Your task to perform on an android device: open app "LinkedIn" (install if not already installed) and enter user name: "dirt@inbox.com" and password: "receptionist" Image 0: 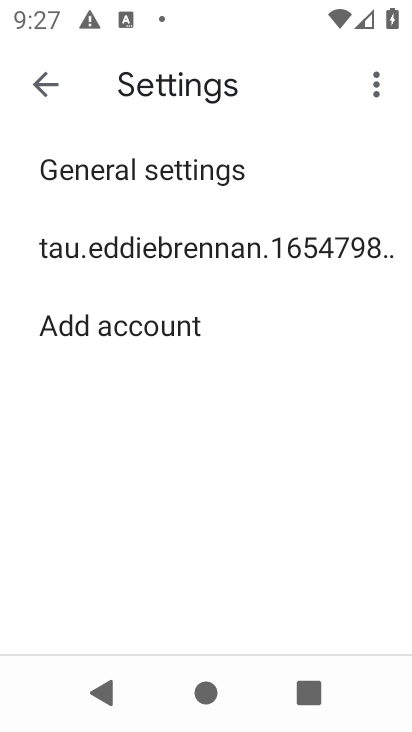
Step 0: press home button
Your task to perform on an android device: open app "LinkedIn" (install if not already installed) and enter user name: "dirt@inbox.com" and password: "receptionist" Image 1: 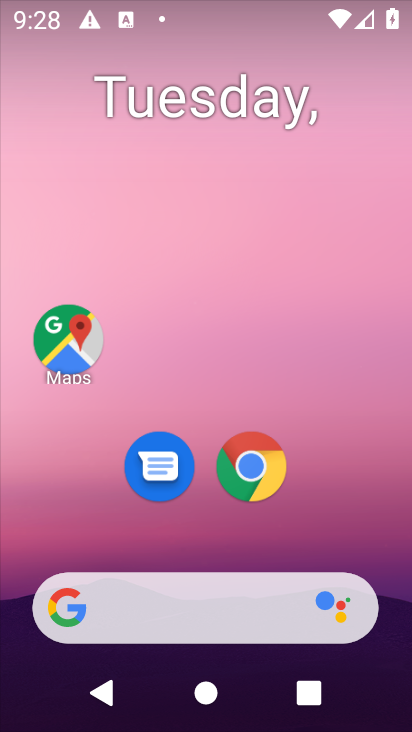
Step 1: drag from (197, 566) to (289, 3)
Your task to perform on an android device: open app "LinkedIn" (install if not already installed) and enter user name: "dirt@inbox.com" and password: "receptionist" Image 2: 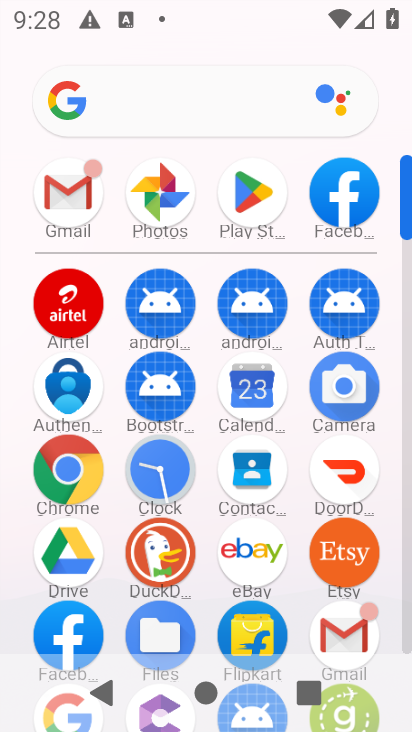
Step 2: click (254, 197)
Your task to perform on an android device: open app "LinkedIn" (install if not already installed) and enter user name: "dirt@inbox.com" and password: "receptionist" Image 3: 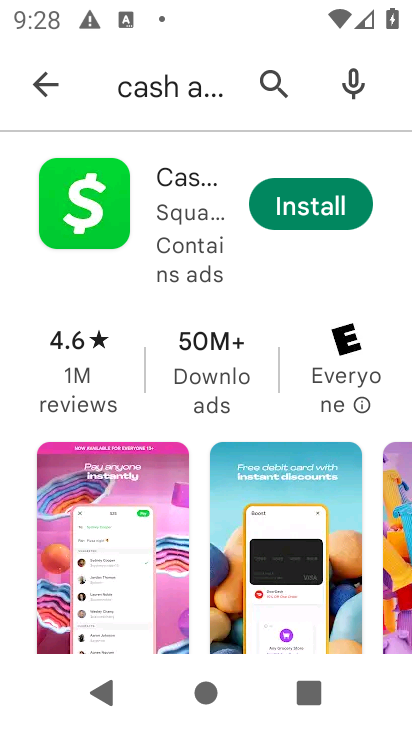
Step 3: click (270, 85)
Your task to perform on an android device: open app "LinkedIn" (install if not already installed) and enter user name: "dirt@inbox.com" and password: "receptionist" Image 4: 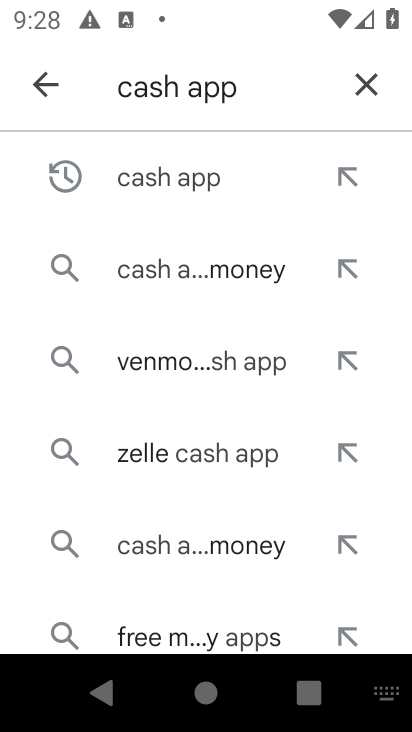
Step 4: click (364, 86)
Your task to perform on an android device: open app "LinkedIn" (install if not already installed) and enter user name: "dirt@inbox.com" and password: "receptionist" Image 5: 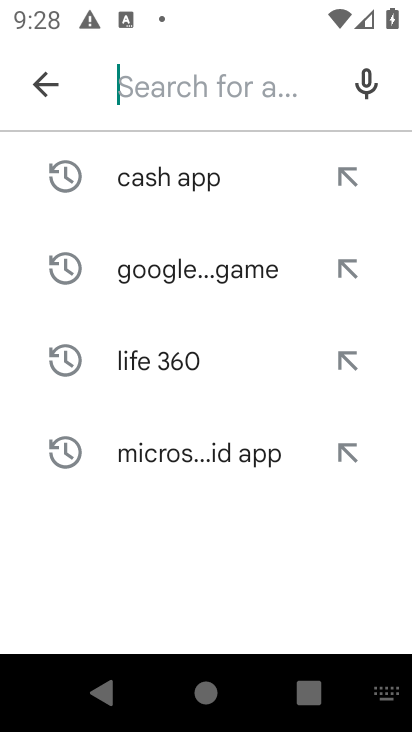
Step 5: click (183, 102)
Your task to perform on an android device: open app "LinkedIn" (install if not already installed) and enter user name: "dirt@inbox.com" and password: "receptionist" Image 6: 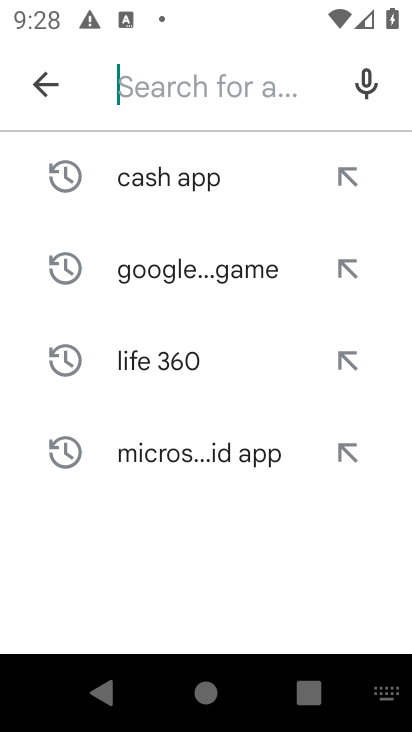
Step 6: click (173, 79)
Your task to perform on an android device: open app "LinkedIn" (install if not already installed) and enter user name: "dirt@inbox.com" and password: "receptionist" Image 7: 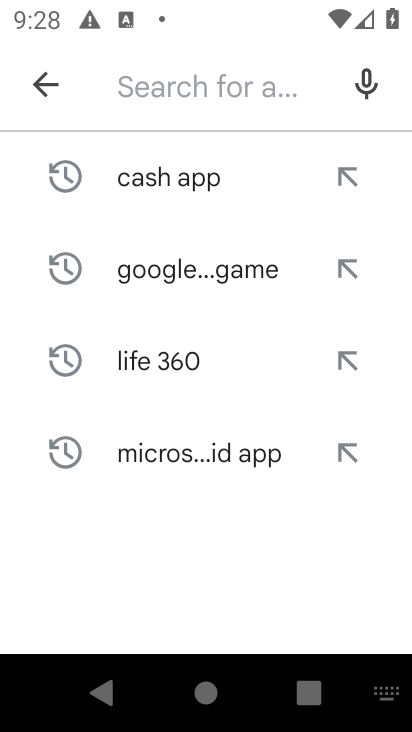
Step 7: type "LinkedIn"
Your task to perform on an android device: open app "LinkedIn" (install if not already installed) and enter user name: "dirt@inbox.com" and password: "receptionist" Image 8: 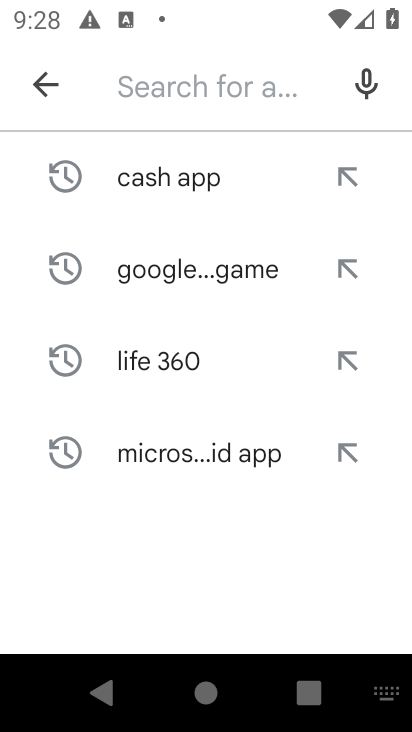
Step 8: click (189, 559)
Your task to perform on an android device: open app "LinkedIn" (install if not already installed) and enter user name: "dirt@inbox.com" and password: "receptionist" Image 9: 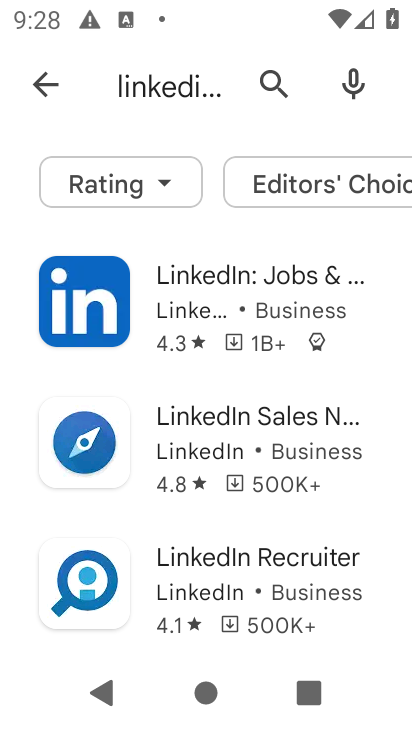
Step 9: click (189, 269)
Your task to perform on an android device: open app "LinkedIn" (install if not already installed) and enter user name: "dirt@inbox.com" and password: "receptionist" Image 10: 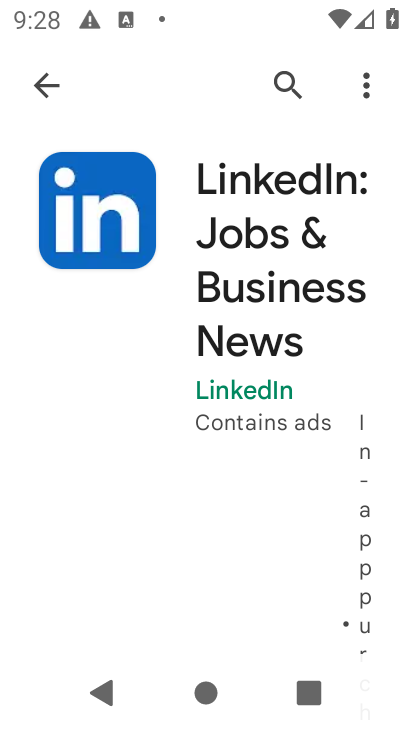
Step 10: click (303, 85)
Your task to perform on an android device: open app "LinkedIn" (install if not already installed) and enter user name: "dirt@inbox.com" and password: "receptionist" Image 11: 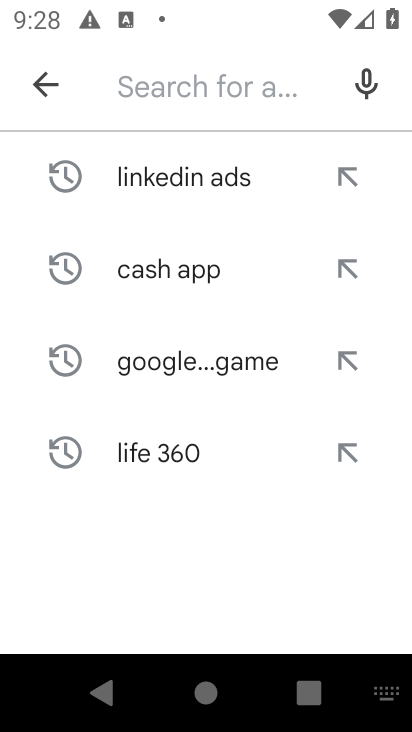
Step 11: click (215, 94)
Your task to perform on an android device: open app "LinkedIn" (install if not already installed) and enter user name: "dirt@inbox.com" and password: "receptionist" Image 12: 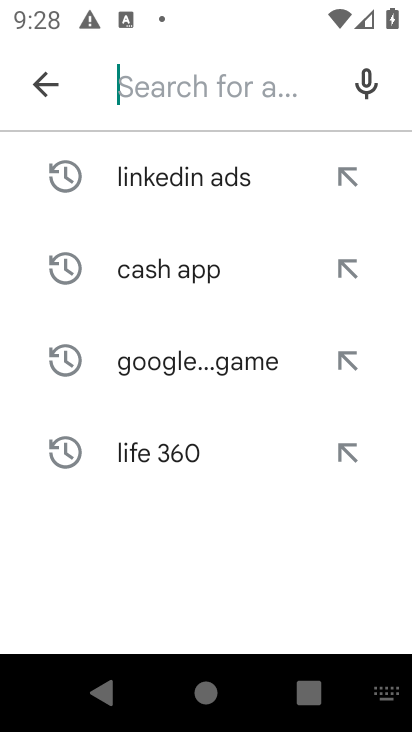
Step 12: type "dirt@inbox.com"
Your task to perform on an android device: open app "LinkedIn" (install if not already installed) and enter user name: "dirt@inbox.com" and password: "receptionist" Image 13: 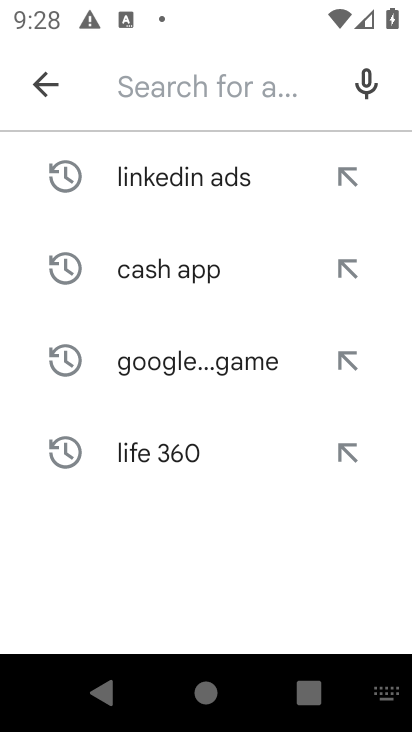
Step 13: click (203, 578)
Your task to perform on an android device: open app "LinkedIn" (install if not already installed) and enter user name: "dirt@inbox.com" and password: "receptionist" Image 14: 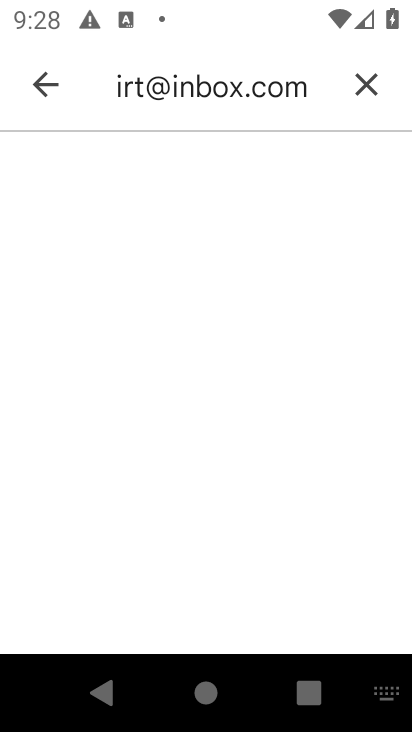
Step 14: click (373, 80)
Your task to perform on an android device: open app "LinkedIn" (install if not already installed) and enter user name: "dirt@inbox.com" and password: "receptionist" Image 15: 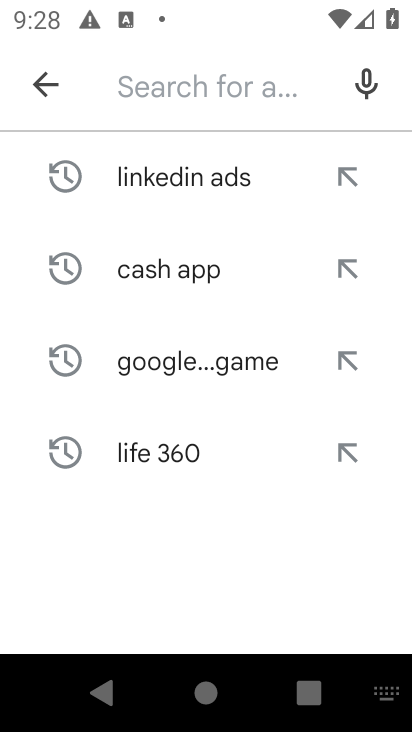
Step 15: click (160, 184)
Your task to perform on an android device: open app "LinkedIn" (install if not already installed) and enter user name: "dirt@inbox.com" and password: "receptionist" Image 16: 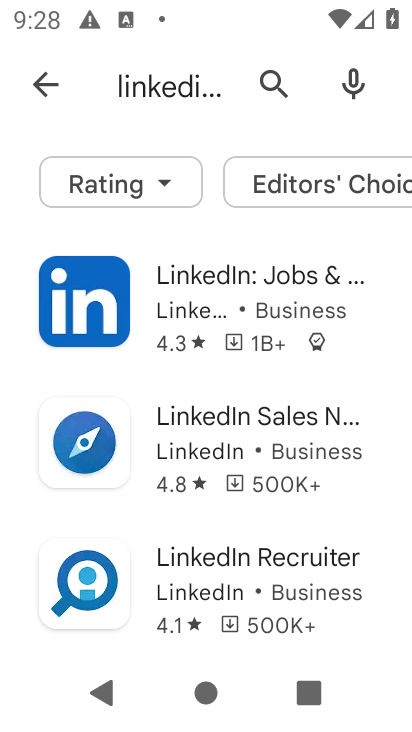
Step 16: click (133, 322)
Your task to perform on an android device: open app "LinkedIn" (install if not already installed) and enter user name: "dirt@inbox.com" and password: "receptionist" Image 17: 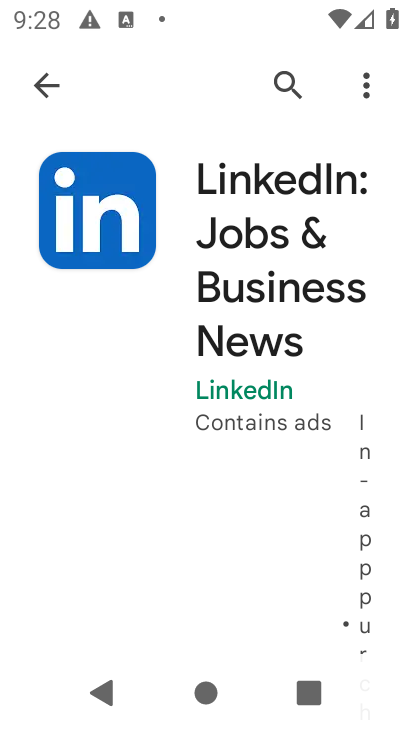
Step 17: drag from (252, 616) to (287, 93)
Your task to perform on an android device: open app "LinkedIn" (install if not already installed) and enter user name: "dirt@inbox.com" and password: "receptionist" Image 18: 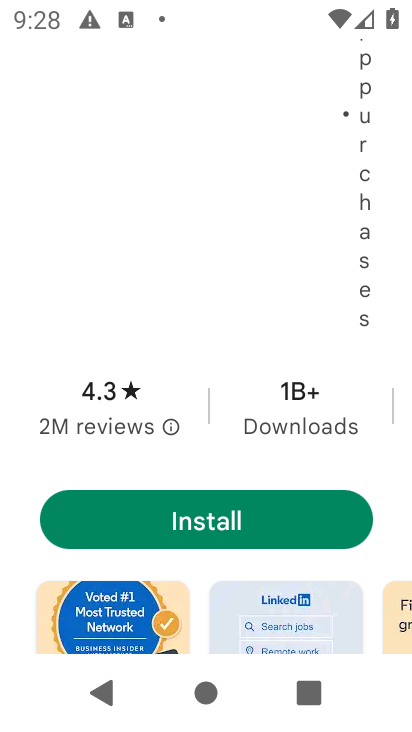
Step 18: click (233, 521)
Your task to perform on an android device: open app "LinkedIn" (install if not already installed) and enter user name: "dirt@inbox.com" and password: "receptionist" Image 19: 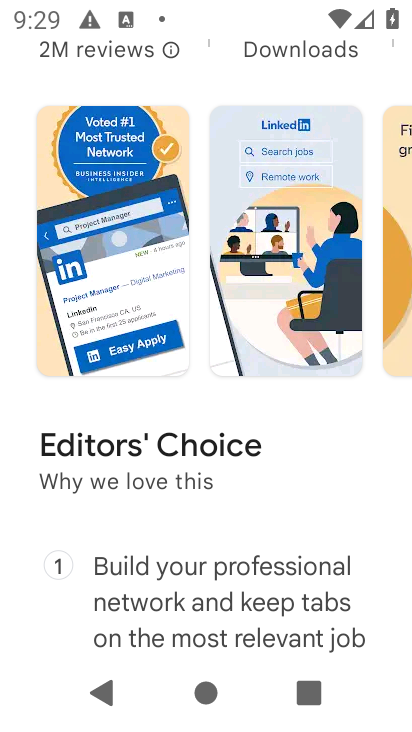
Step 19: drag from (263, 216) to (273, 680)
Your task to perform on an android device: open app "LinkedIn" (install if not already installed) and enter user name: "dirt@inbox.com" and password: "receptionist" Image 20: 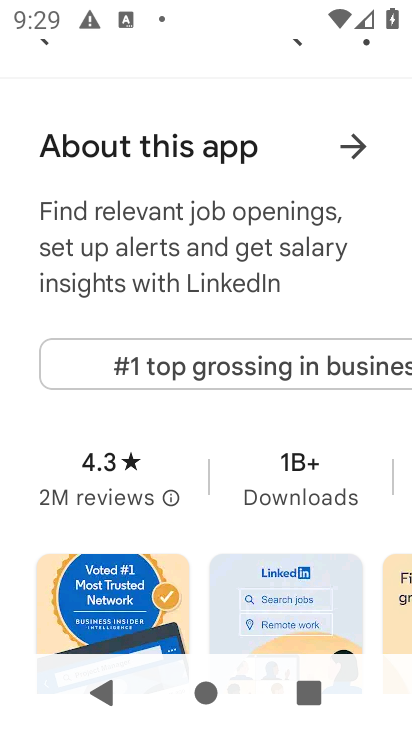
Step 20: drag from (277, 221) to (140, 695)
Your task to perform on an android device: open app "LinkedIn" (install if not already installed) and enter user name: "dirt@inbox.com" and password: "receptionist" Image 21: 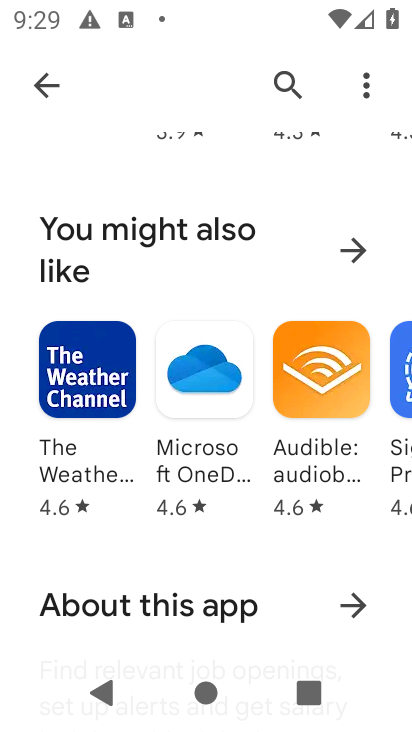
Step 21: click (283, 78)
Your task to perform on an android device: open app "LinkedIn" (install if not already installed) and enter user name: "dirt@inbox.com" and password: "receptionist" Image 22: 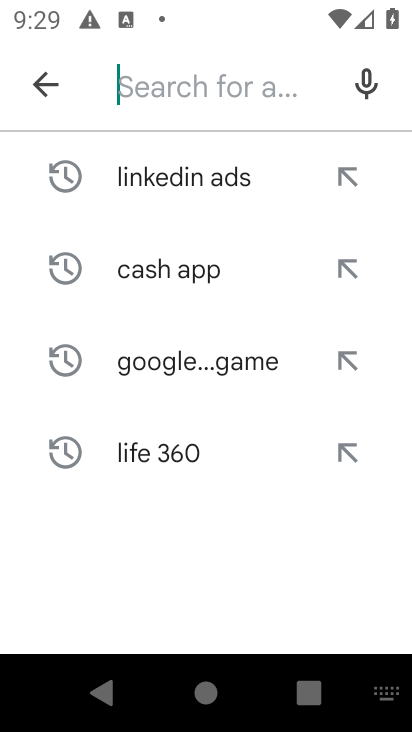
Step 22: click (129, 172)
Your task to perform on an android device: open app "LinkedIn" (install if not already installed) and enter user name: "dirt@inbox.com" and password: "receptionist" Image 23: 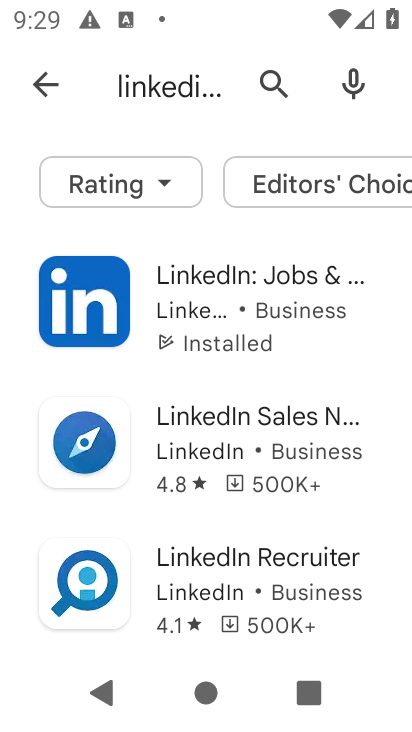
Step 23: click (192, 269)
Your task to perform on an android device: open app "LinkedIn" (install if not already installed) and enter user name: "dirt@inbox.com" and password: "receptionist" Image 24: 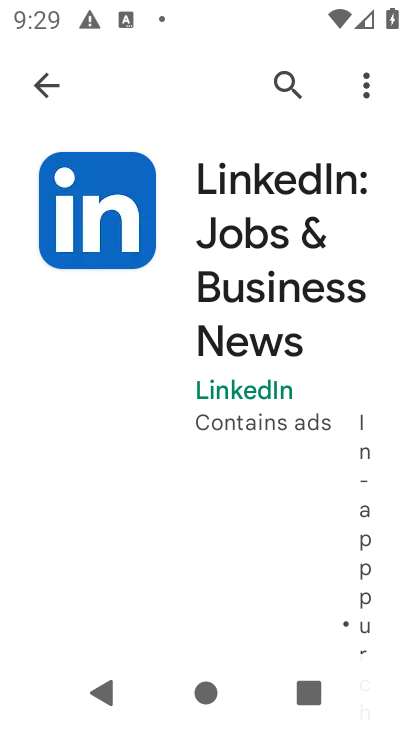
Step 24: drag from (137, 586) to (188, 95)
Your task to perform on an android device: open app "LinkedIn" (install if not already installed) and enter user name: "dirt@inbox.com" and password: "receptionist" Image 25: 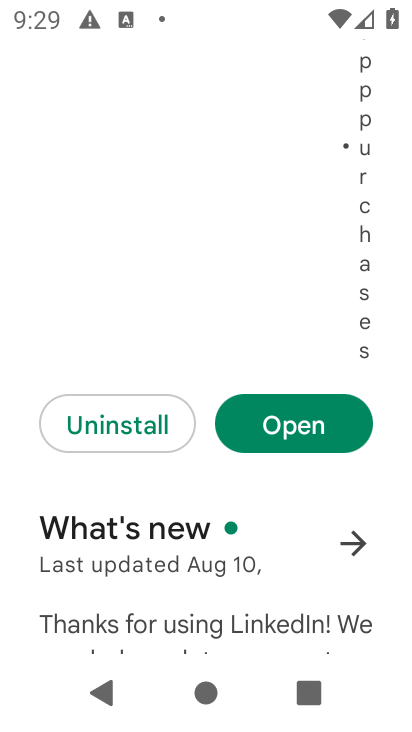
Step 25: click (291, 427)
Your task to perform on an android device: open app "LinkedIn" (install if not already installed) and enter user name: "dirt@inbox.com" and password: "receptionist" Image 26: 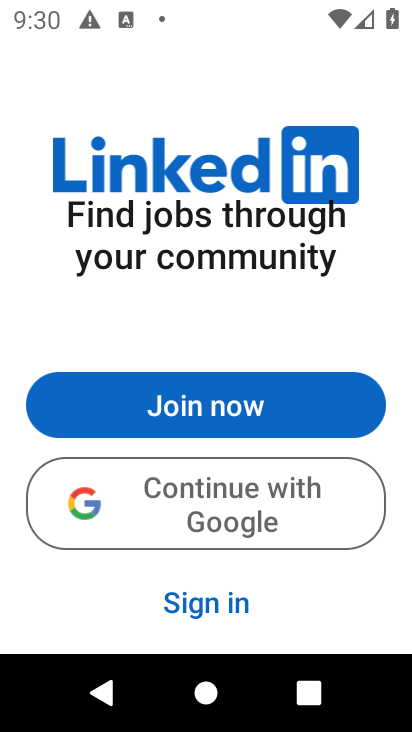
Step 26: click (204, 609)
Your task to perform on an android device: open app "LinkedIn" (install if not already installed) and enter user name: "dirt@inbox.com" and password: "receptionist" Image 27: 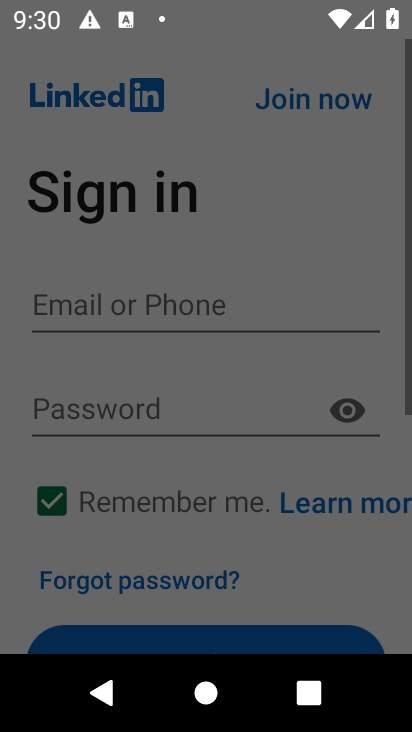
Step 27: click (78, 298)
Your task to perform on an android device: open app "LinkedIn" (install if not already installed) and enter user name: "dirt@inbox.com" and password: "receptionist" Image 28: 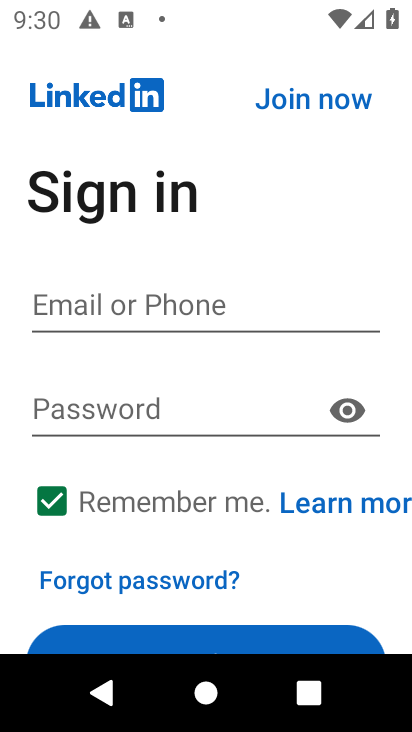
Step 28: click (125, 304)
Your task to perform on an android device: open app "LinkedIn" (install if not already installed) and enter user name: "dirt@inbox.com" and password: "receptionist" Image 29: 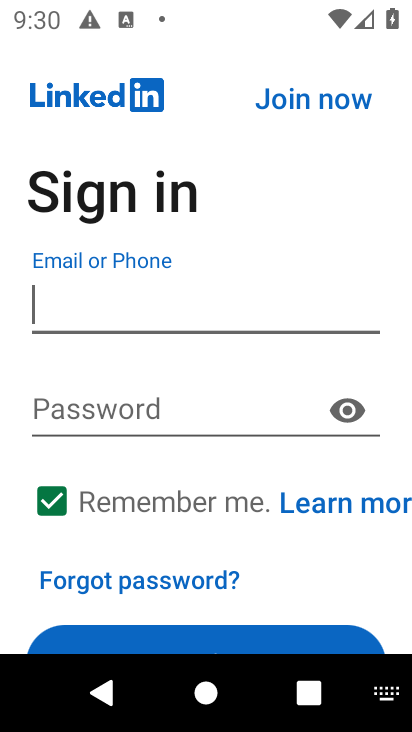
Step 29: type "dirt@inbox.com"
Your task to perform on an android device: open app "LinkedIn" (install if not already installed) and enter user name: "dirt@inbox.com" and password: "receptionist" Image 30: 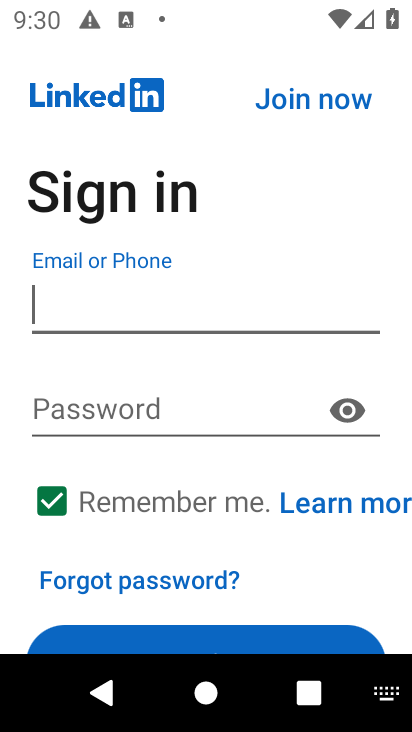
Step 30: click (179, 410)
Your task to perform on an android device: open app "LinkedIn" (install if not already installed) and enter user name: "dirt@inbox.com" and password: "receptionist" Image 31: 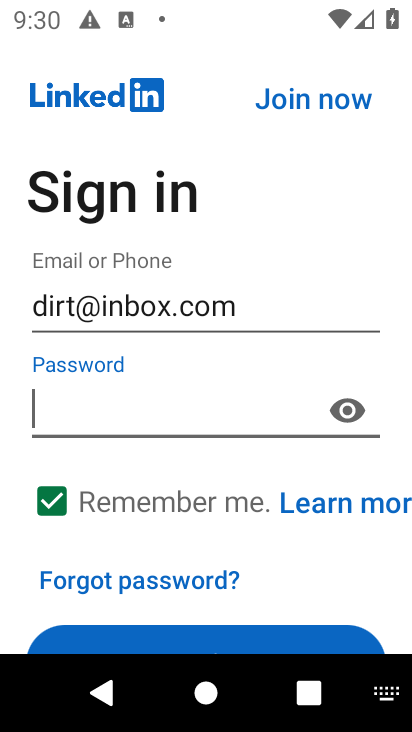
Step 31: click (86, 385)
Your task to perform on an android device: open app "LinkedIn" (install if not already installed) and enter user name: "dirt@inbox.com" and password: "receptionist" Image 32: 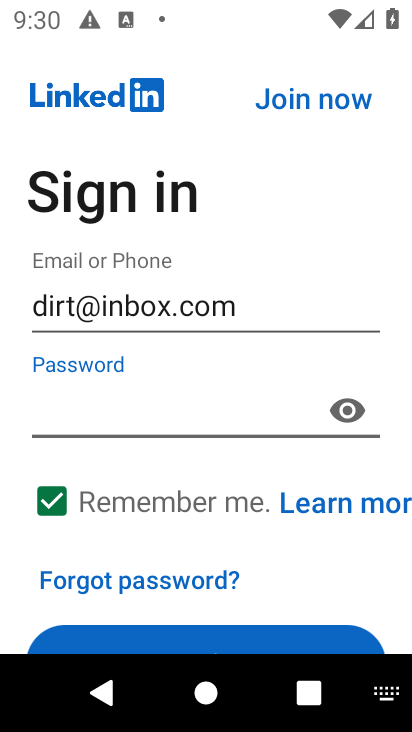
Step 32: type "receptionist"
Your task to perform on an android device: open app "LinkedIn" (install if not already installed) and enter user name: "dirt@inbox.com" and password: "receptionist" Image 33: 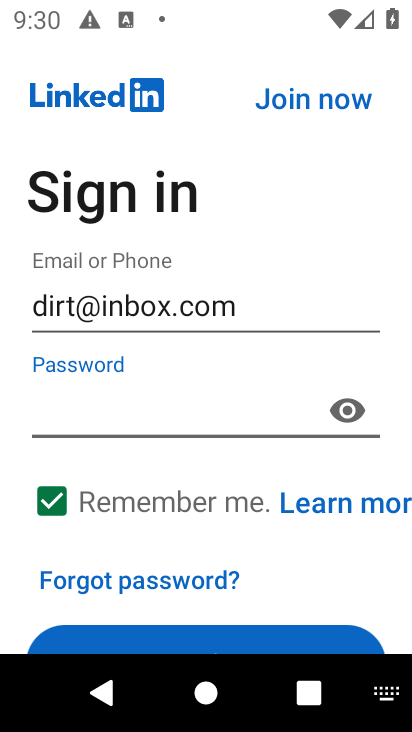
Step 33: click (3, 445)
Your task to perform on an android device: open app "LinkedIn" (install if not already installed) and enter user name: "dirt@inbox.com" and password: "receptionist" Image 34: 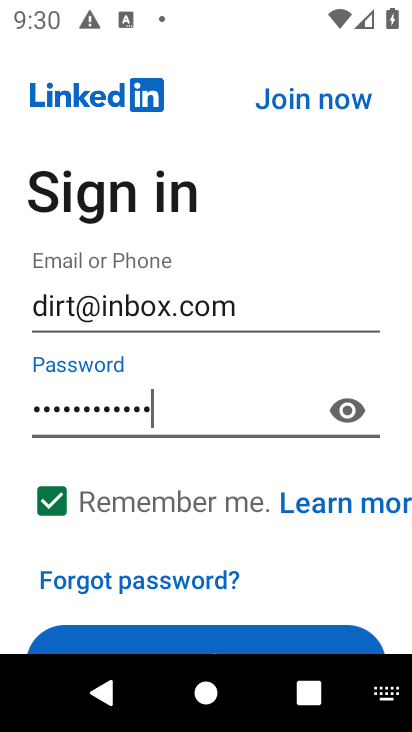
Step 34: task complete